Your task to perform on an android device: What's on my calendar today? Image 0: 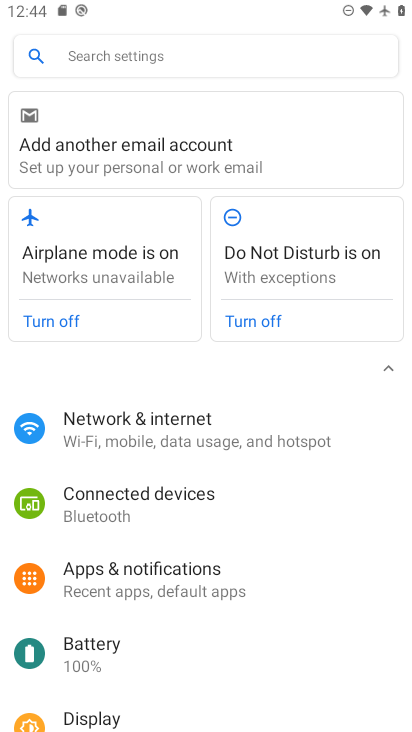
Step 0: press home button
Your task to perform on an android device: What's on my calendar today? Image 1: 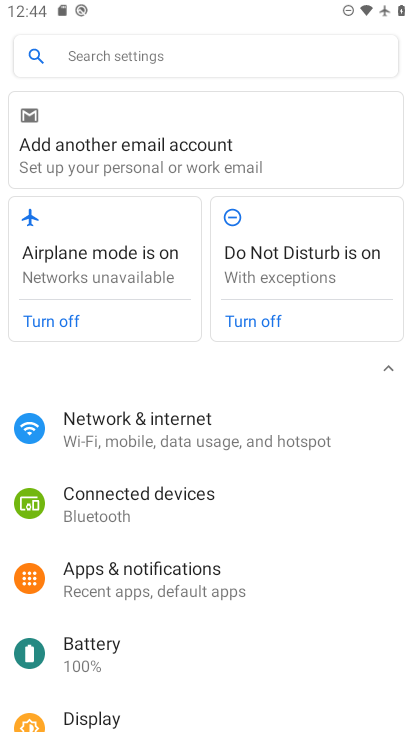
Step 1: press home button
Your task to perform on an android device: What's on my calendar today? Image 2: 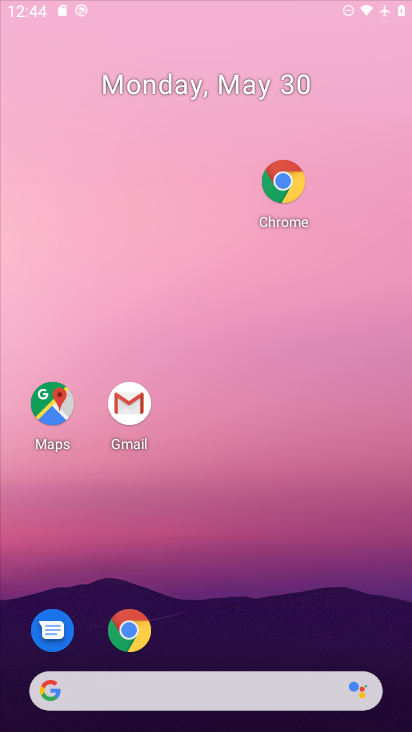
Step 2: press home button
Your task to perform on an android device: What's on my calendar today? Image 3: 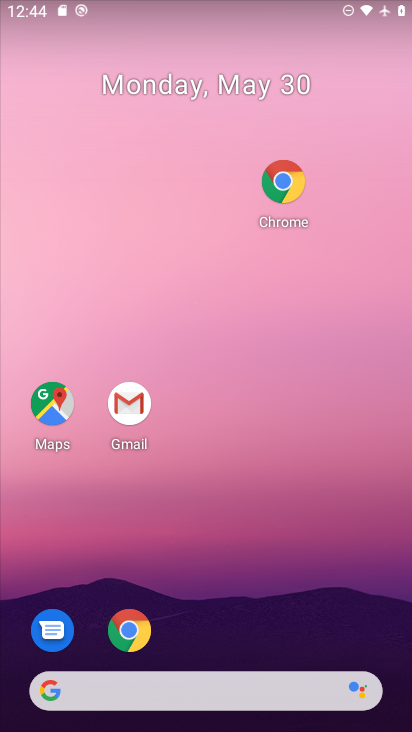
Step 3: drag from (295, 669) to (169, 144)
Your task to perform on an android device: What's on my calendar today? Image 4: 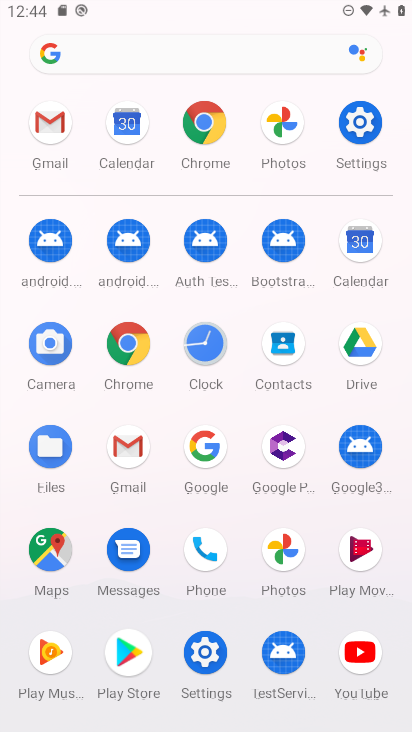
Step 4: click (345, 246)
Your task to perform on an android device: What's on my calendar today? Image 5: 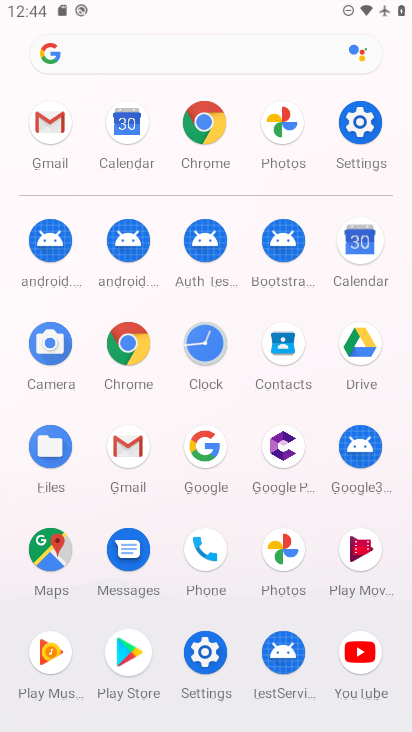
Step 5: click (360, 234)
Your task to perform on an android device: What's on my calendar today? Image 6: 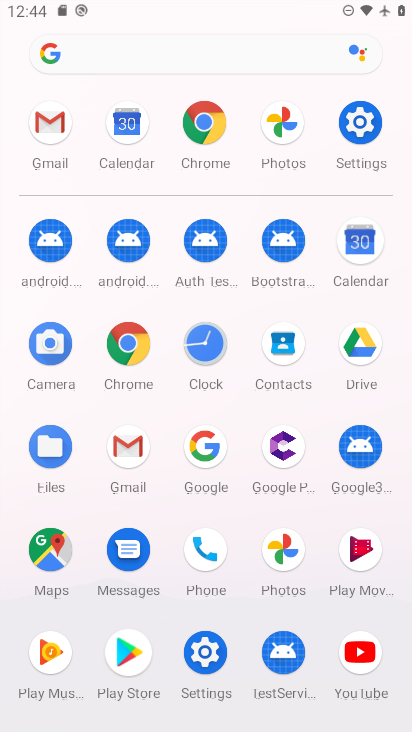
Step 6: click (360, 234)
Your task to perform on an android device: What's on my calendar today? Image 7: 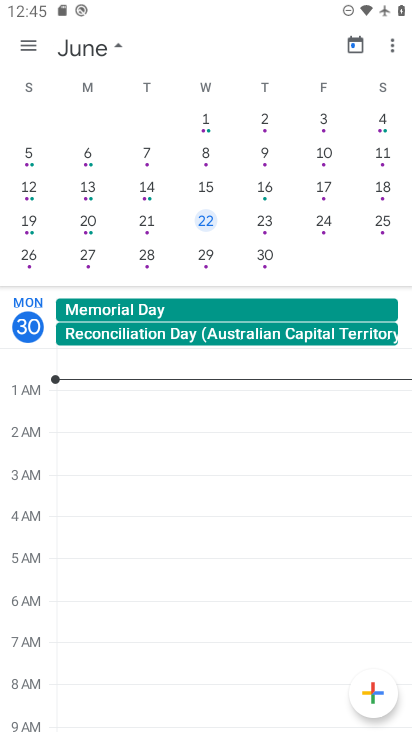
Step 7: drag from (57, 214) to (342, 243)
Your task to perform on an android device: What's on my calendar today? Image 8: 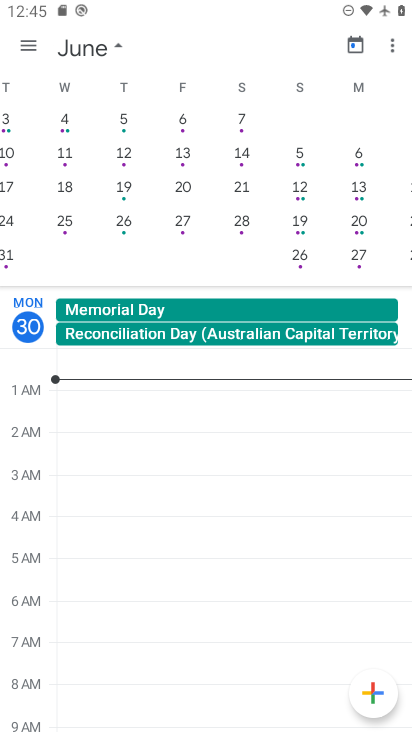
Step 8: drag from (29, 235) to (335, 276)
Your task to perform on an android device: What's on my calendar today? Image 9: 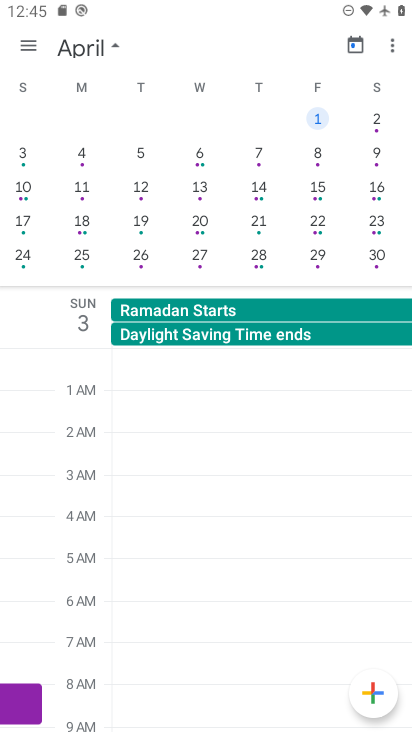
Step 9: drag from (74, 216) to (411, 187)
Your task to perform on an android device: What's on my calendar today? Image 10: 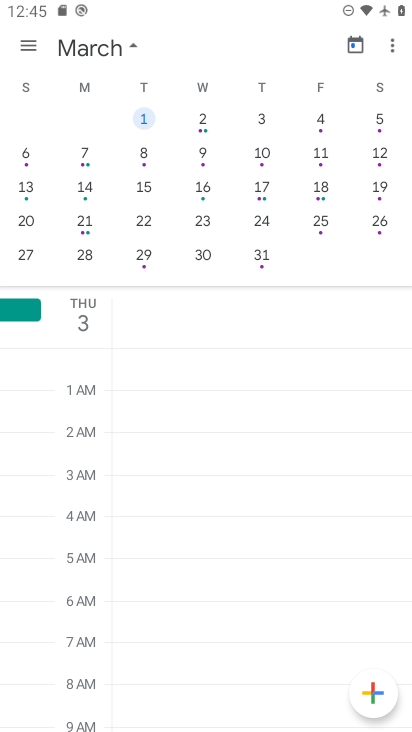
Step 10: drag from (321, 213) to (102, 270)
Your task to perform on an android device: What's on my calendar today? Image 11: 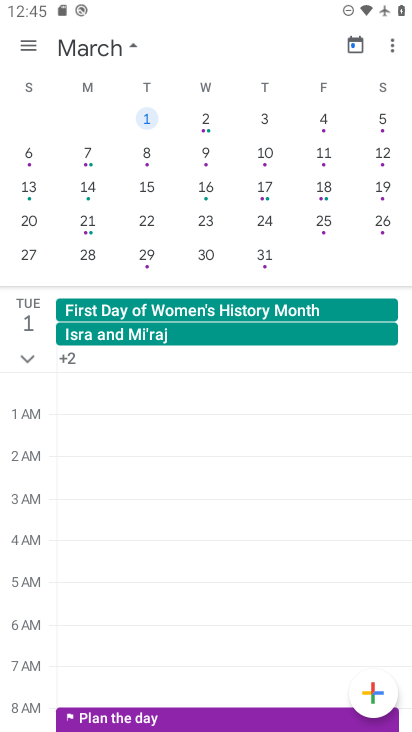
Step 11: click (13, 255)
Your task to perform on an android device: What's on my calendar today? Image 12: 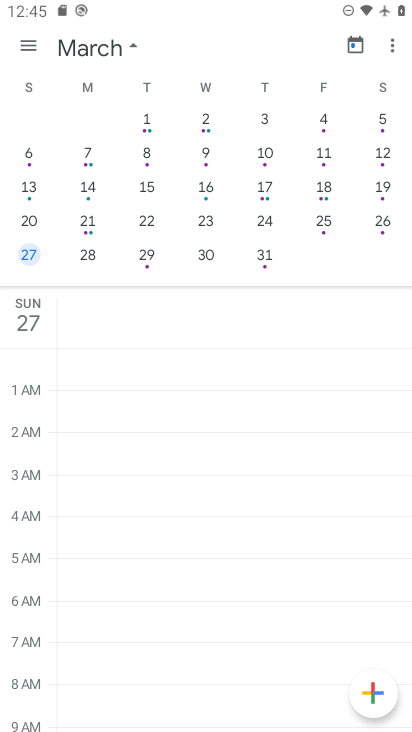
Step 12: drag from (272, 175) to (86, 260)
Your task to perform on an android device: What's on my calendar today? Image 13: 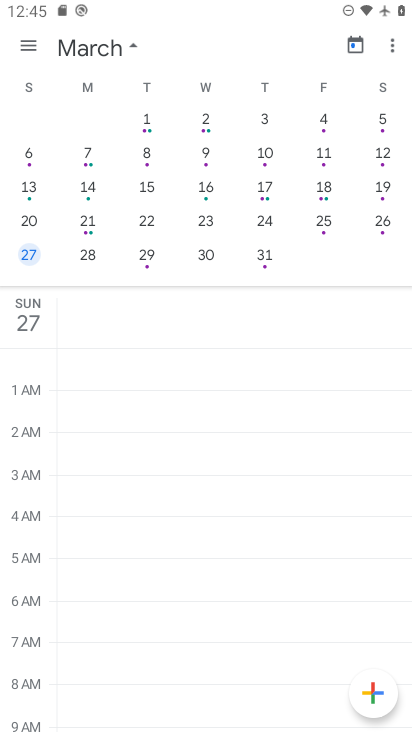
Step 13: drag from (335, 169) to (39, 206)
Your task to perform on an android device: What's on my calendar today? Image 14: 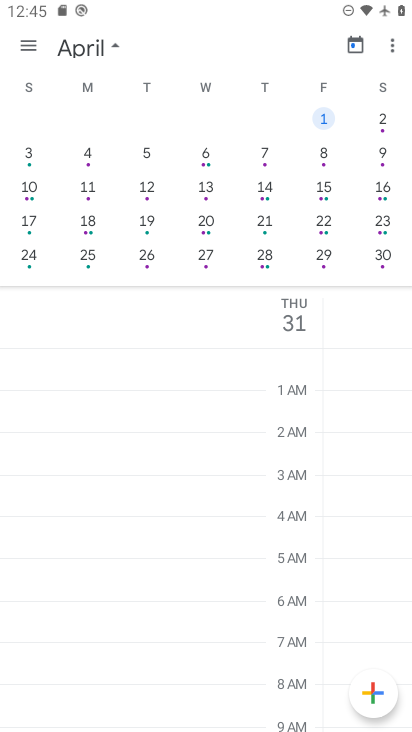
Step 14: drag from (190, 153) to (53, 213)
Your task to perform on an android device: What's on my calendar today? Image 15: 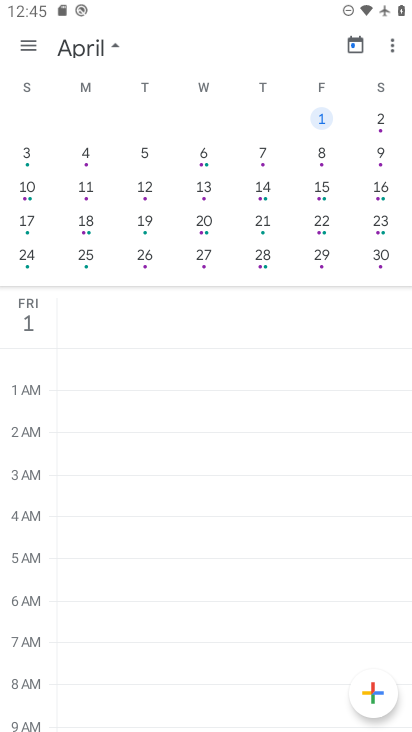
Step 15: drag from (310, 175) to (53, 190)
Your task to perform on an android device: What's on my calendar today? Image 16: 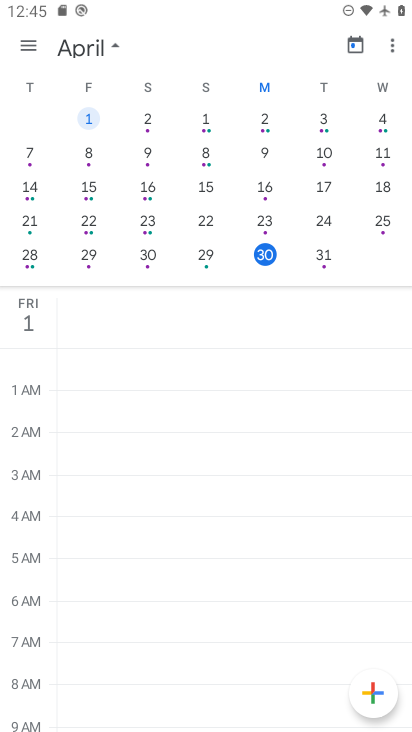
Step 16: drag from (194, 169) to (16, 211)
Your task to perform on an android device: What's on my calendar today? Image 17: 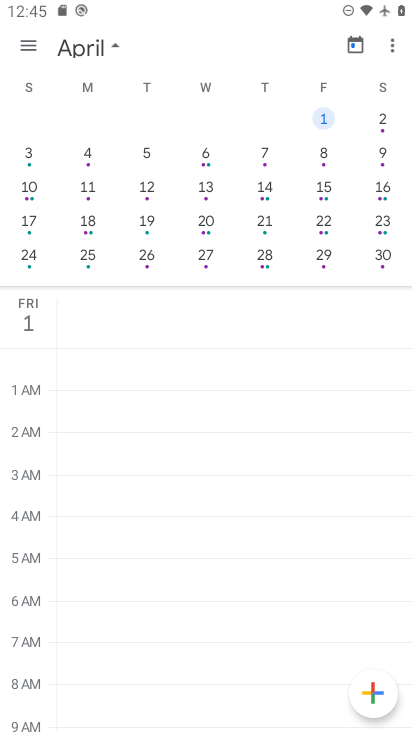
Step 17: drag from (328, 192) to (138, 264)
Your task to perform on an android device: What's on my calendar today? Image 18: 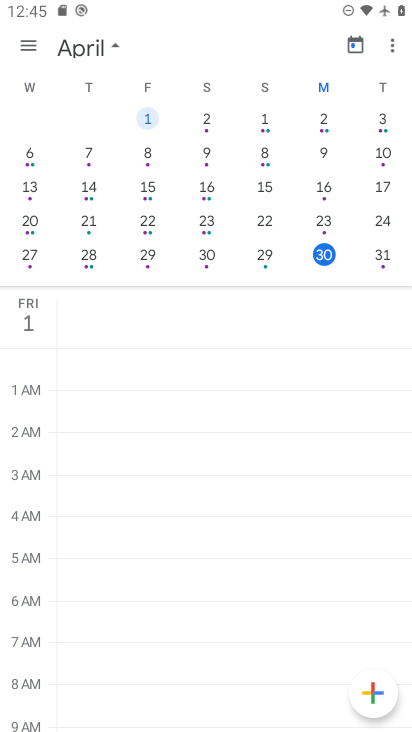
Step 18: drag from (188, 227) to (107, 252)
Your task to perform on an android device: What's on my calendar today? Image 19: 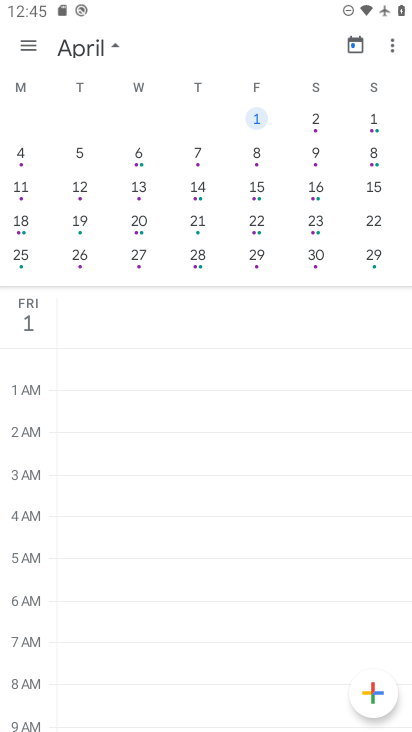
Step 19: drag from (208, 218) to (44, 227)
Your task to perform on an android device: What's on my calendar today? Image 20: 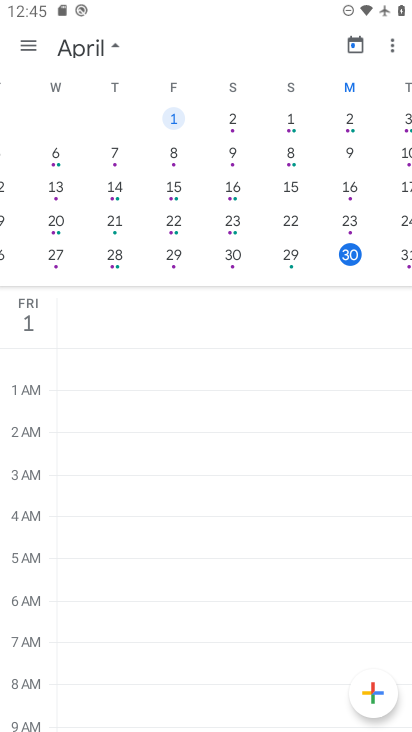
Step 20: drag from (203, 174) to (56, 218)
Your task to perform on an android device: What's on my calendar today? Image 21: 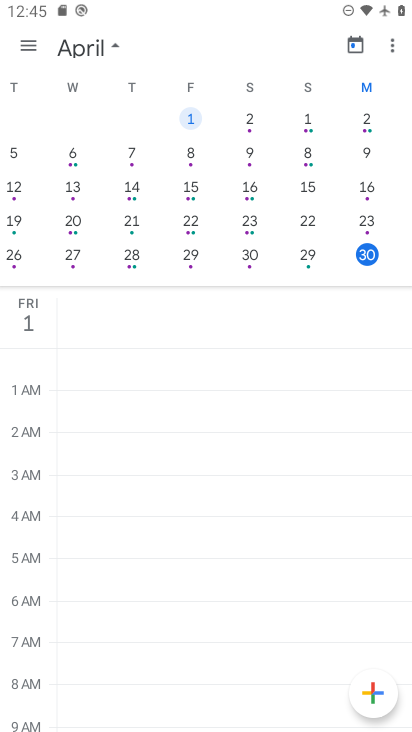
Step 21: drag from (341, 178) to (54, 251)
Your task to perform on an android device: What's on my calendar today? Image 22: 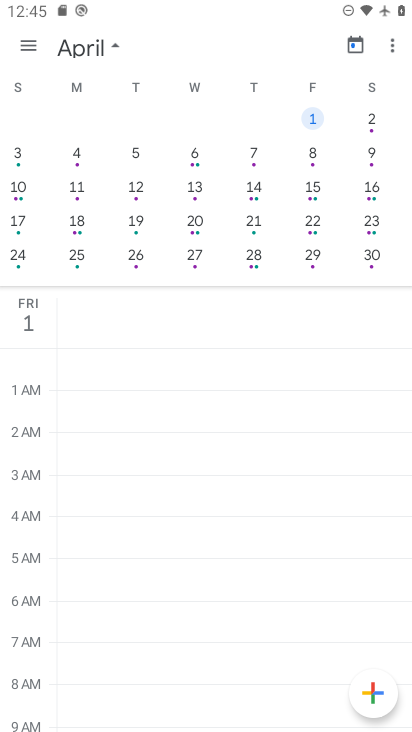
Step 22: drag from (256, 195) to (77, 241)
Your task to perform on an android device: What's on my calendar today? Image 23: 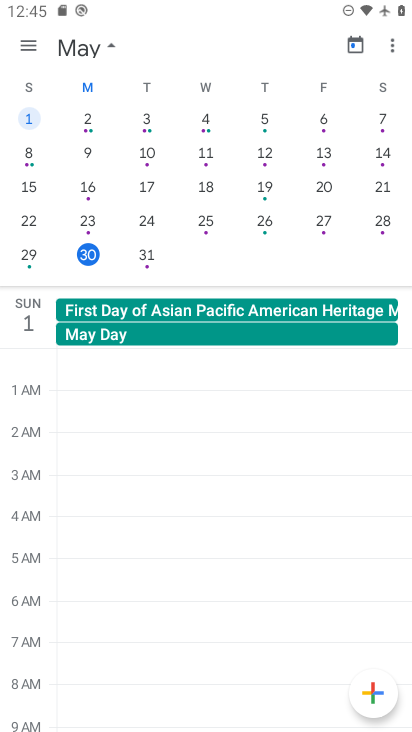
Step 23: click (147, 255)
Your task to perform on an android device: What's on my calendar today? Image 24: 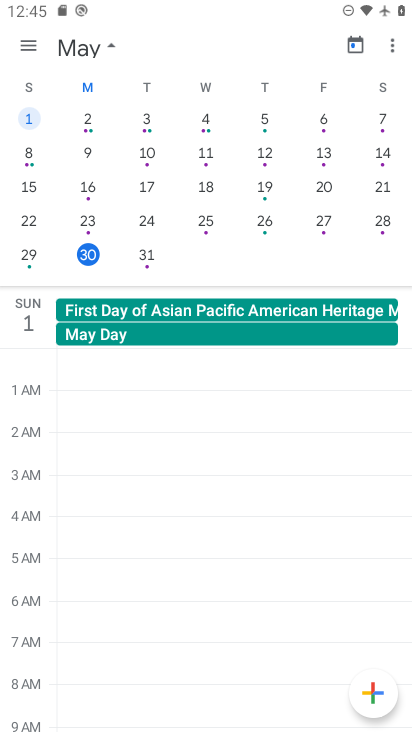
Step 24: click (148, 254)
Your task to perform on an android device: What's on my calendar today? Image 25: 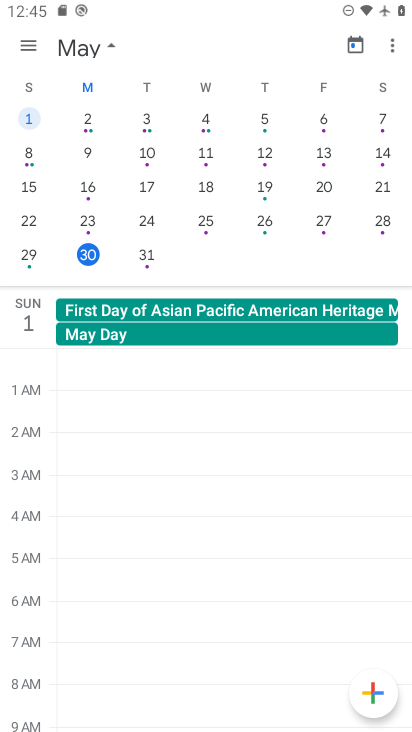
Step 25: click (151, 255)
Your task to perform on an android device: What's on my calendar today? Image 26: 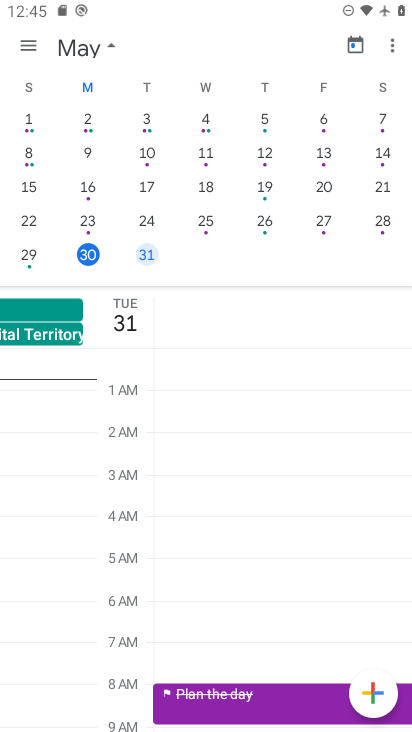
Step 26: click (152, 254)
Your task to perform on an android device: What's on my calendar today? Image 27: 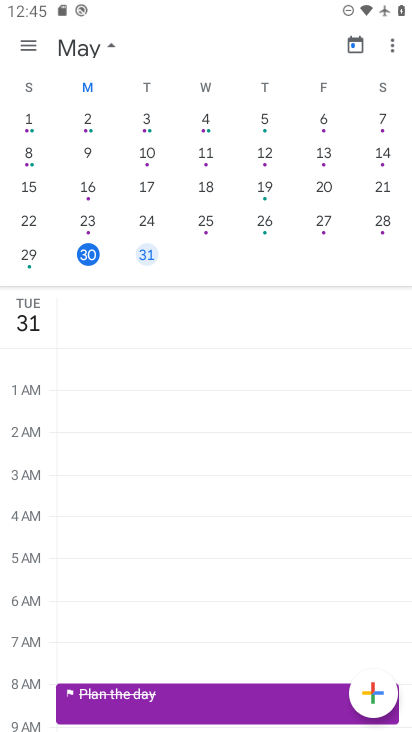
Step 27: click (152, 254)
Your task to perform on an android device: What's on my calendar today? Image 28: 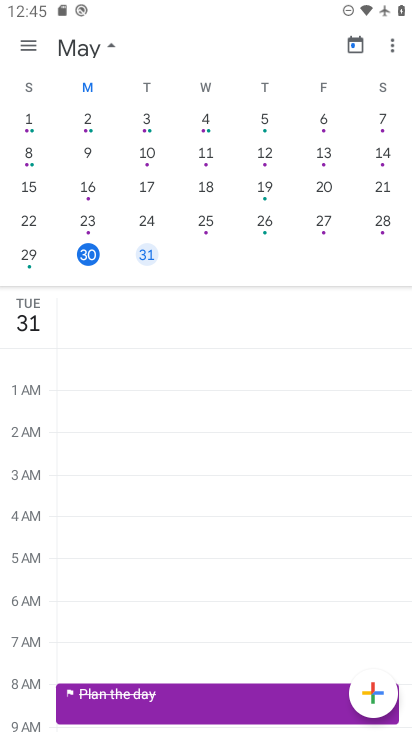
Step 28: click (152, 254)
Your task to perform on an android device: What's on my calendar today? Image 29: 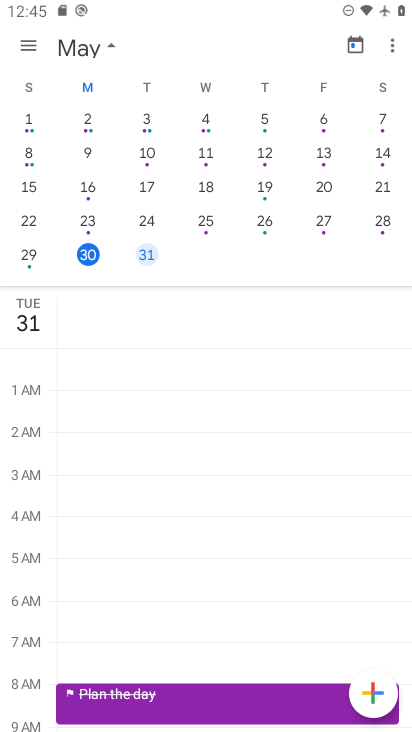
Step 29: task complete